Your task to perform on an android device: toggle javascript in the chrome app Image 0: 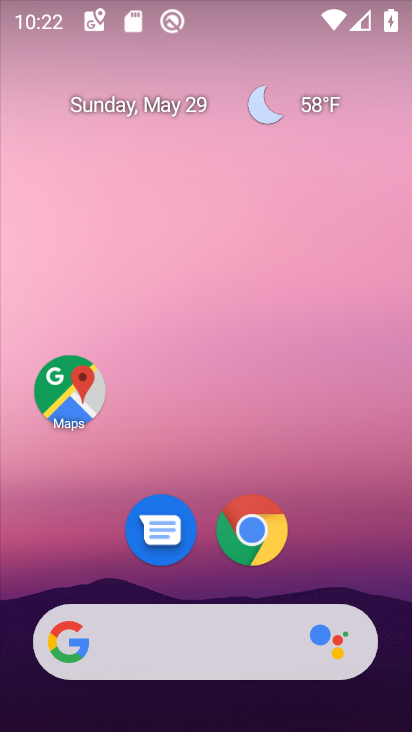
Step 0: click (244, 549)
Your task to perform on an android device: toggle javascript in the chrome app Image 1: 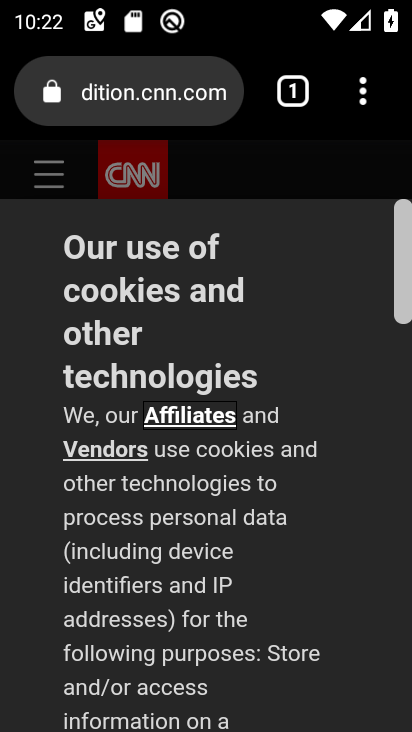
Step 1: drag from (362, 83) to (111, 550)
Your task to perform on an android device: toggle javascript in the chrome app Image 2: 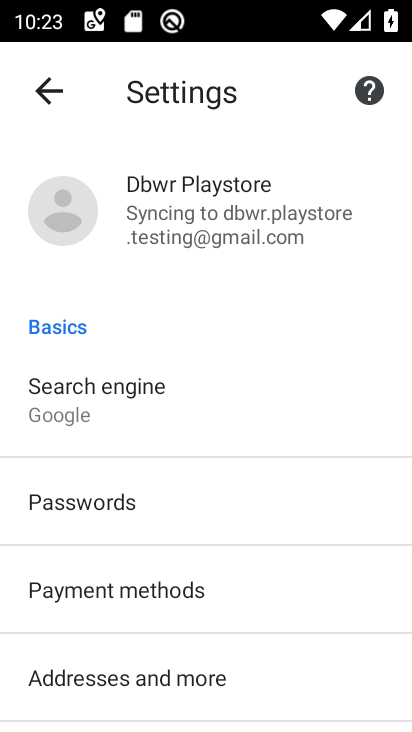
Step 2: drag from (139, 563) to (96, 38)
Your task to perform on an android device: toggle javascript in the chrome app Image 3: 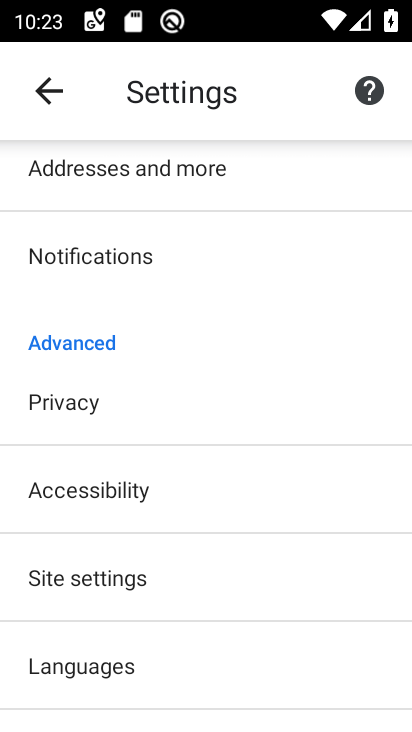
Step 3: click (219, 563)
Your task to perform on an android device: toggle javascript in the chrome app Image 4: 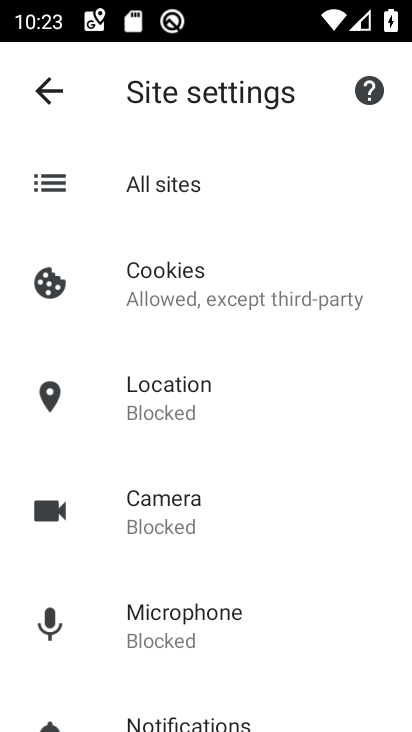
Step 4: drag from (203, 554) to (234, 44)
Your task to perform on an android device: toggle javascript in the chrome app Image 5: 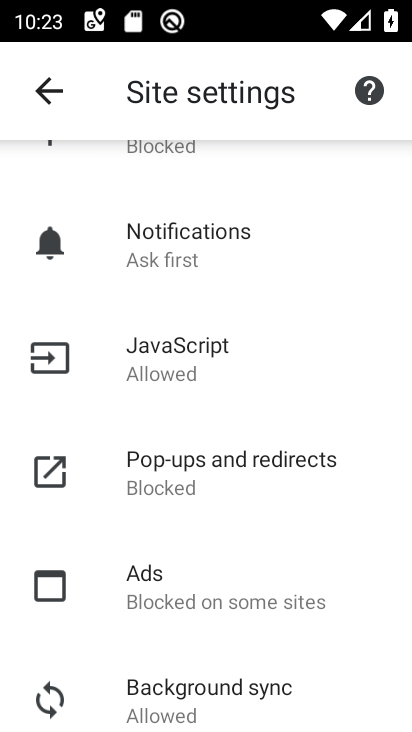
Step 5: click (185, 340)
Your task to perform on an android device: toggle javascript in the chrome app Image 6: 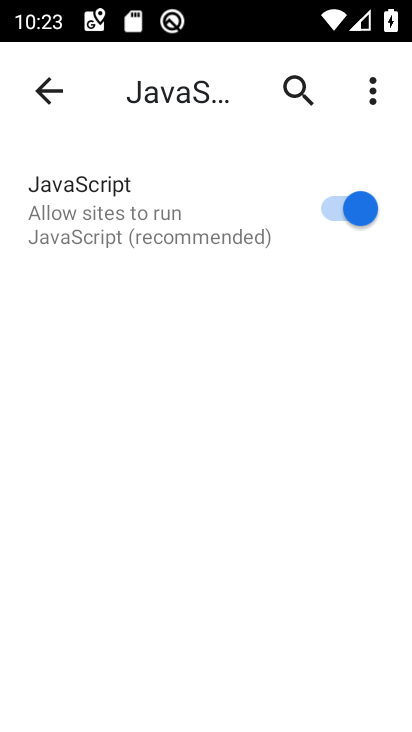
Step 6: click (355, 211)
Your task to perform on an android device: toggle javascript in the chrome app Image 7: 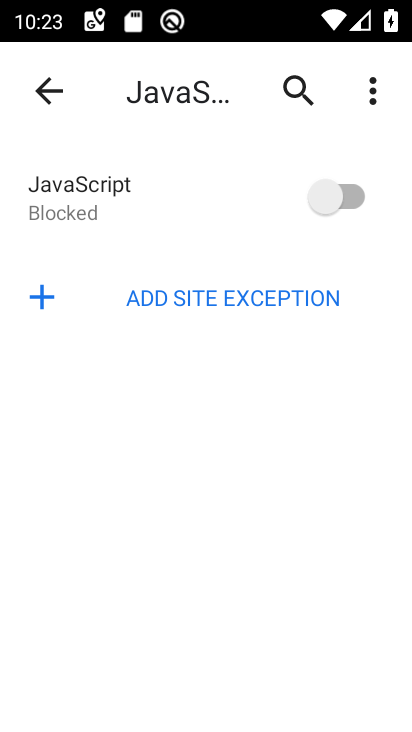
Step 7: task complete